Your task to perform on an android device: clear history in the chrome app Image 0: 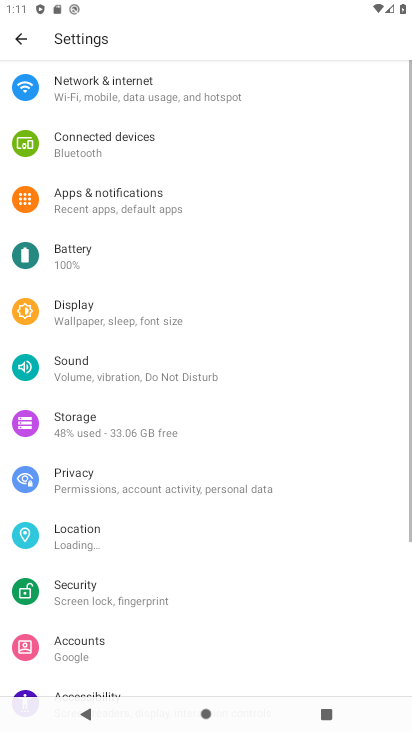
Step 0: press home button
Your task to perform on an android device: clear history in the chrome app Image 1: 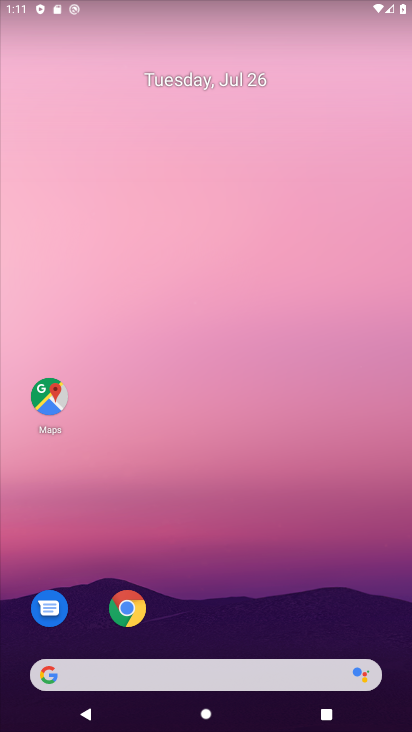
Step 1: drag from (174, 580) to (197, 140)
Your task to perform on an android device: clear history in the chrome app Image 2: 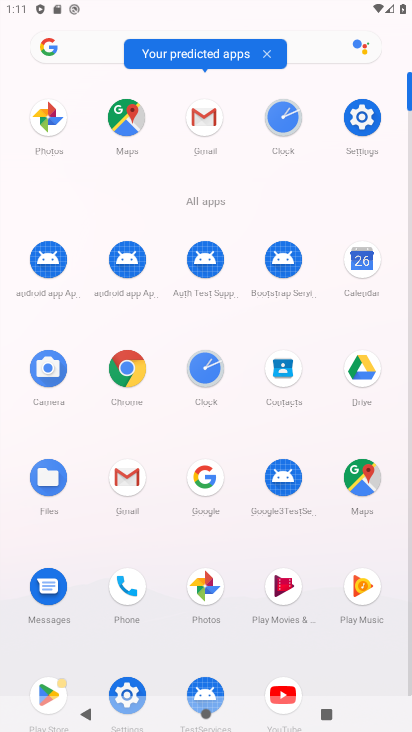
Step 2: click (139, 391)
Your task to perform on an android device: clear history in the chrome app Image 3: 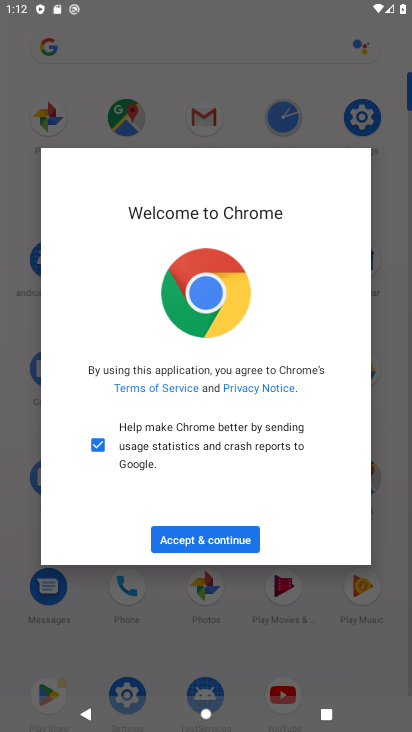
Step 3: click (165, 545)
Your task to perform on an android device: clear history in the chrome app Image 4: 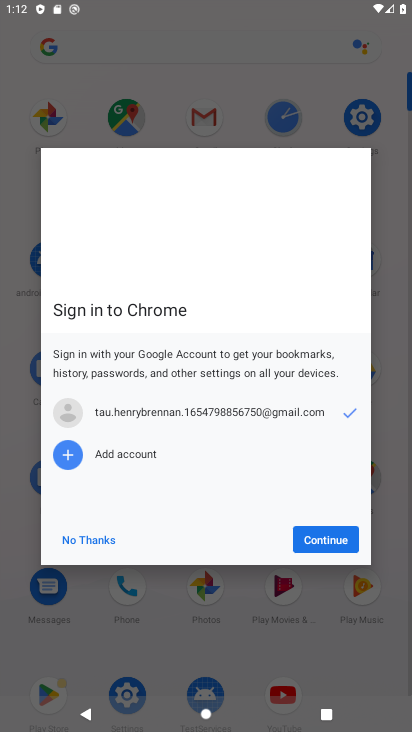
Step 4: click (295, 547)
Your task to perform on an android device: clear history in the chrome app Image 5: 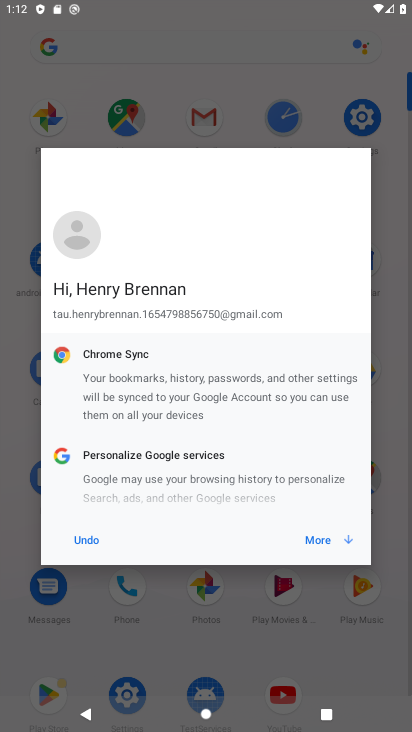
Step 5: click (305, 546)
Your task to perform on an android device: clear history in the chrome app Image 6: 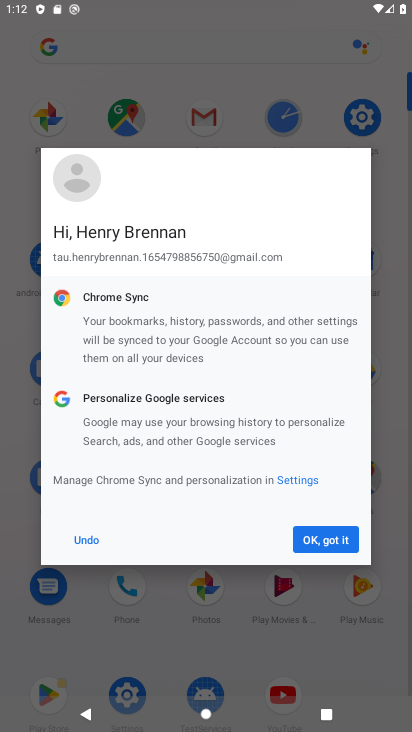
Step 6: click (305, 546)
Your task to perform on an android device: clear history in the chrome app Image 7: 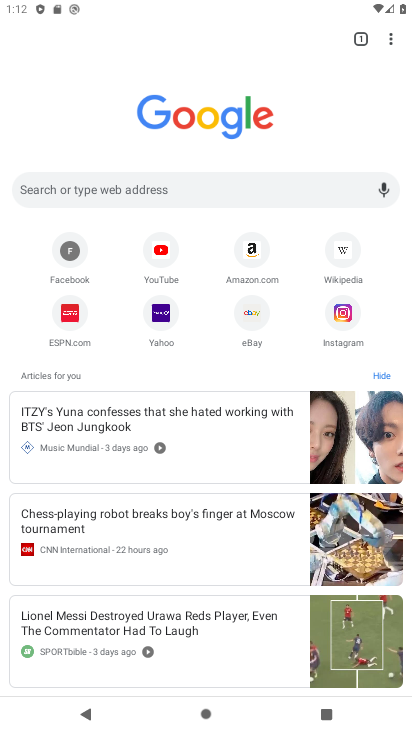
Step 7: click (388, 40)
Your task to perform on an android device: clear history in the chrome app Image 8: 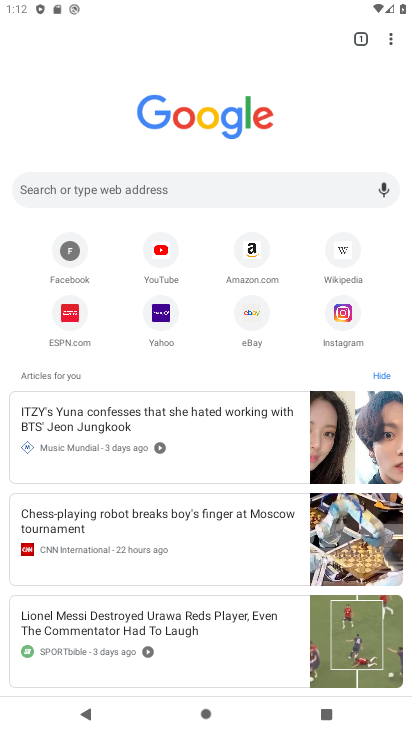
Step 8: click (398, 43)
Your task to perform on an android device: clear history in the chrome app Image 9: 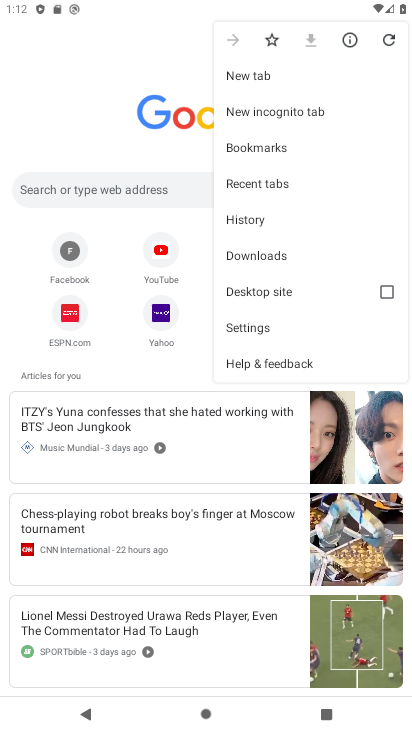
Step 9: click (282, 221)
Your task to perform on an android device: clear history in the chrome app Image 10: 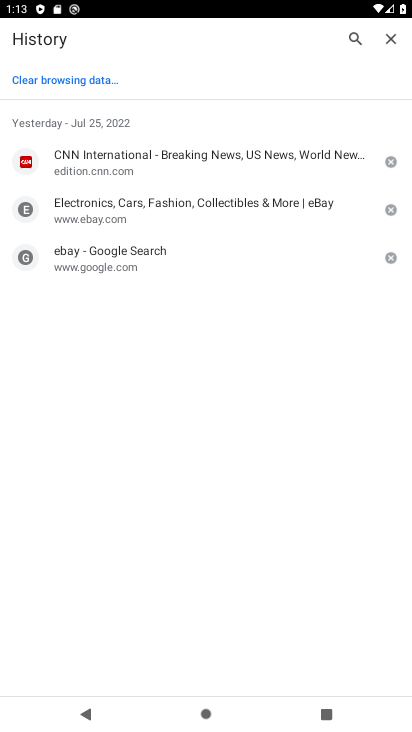
Step 10: click (99, 80)
Your task to perform on an android device: clear history in the chrome app Image 11: 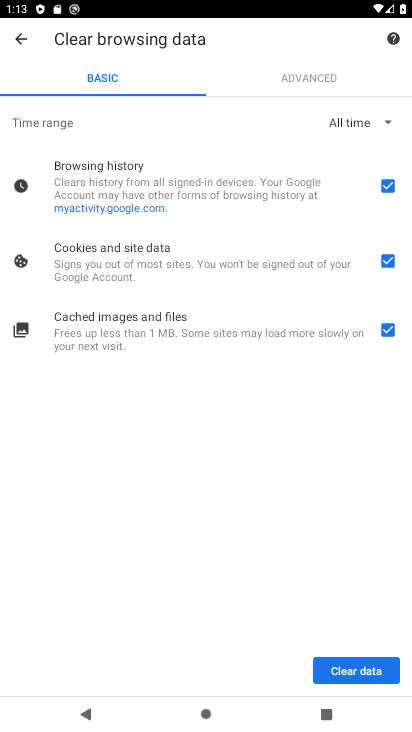
Step 11: click (363, 665)
Your task to perform on an android device: clear history in the chrome app Image 12: 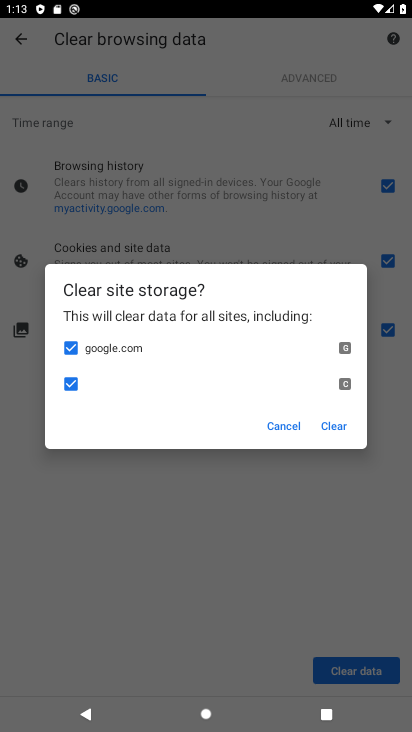
Step 12: click (323, 429)
Your task to perform on an android device: clear history in the chrome app Image 13: 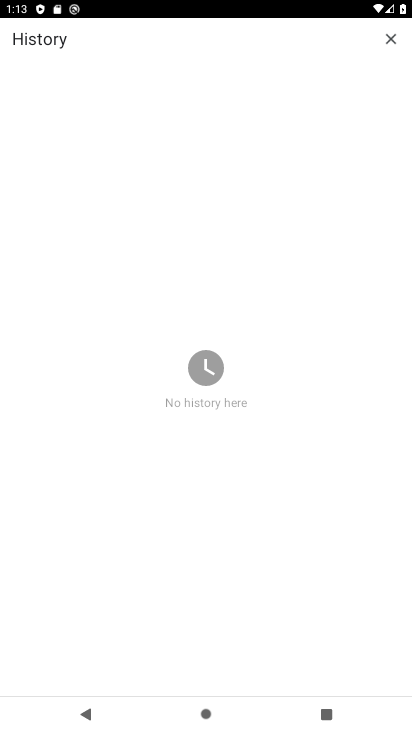
Step 13: task complete